Your task to perform on an android device: Go to location settings Image 0: 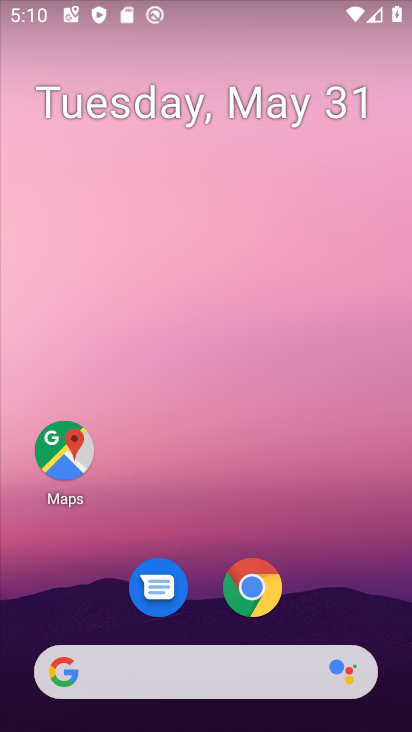
Step 0: drag from (200, 611) to (234, 45)
Your task to perform on an android device: Go to location settings Image 1: 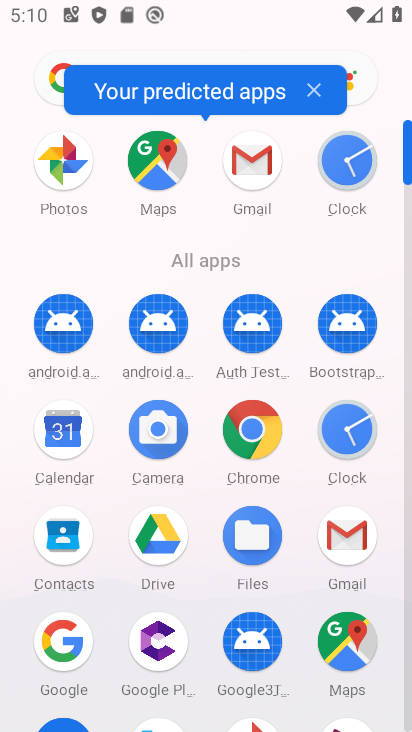
Step 1: drag from (202, 599) to (215, 134)
Your task to perform on an android device: Go to location settings Image 2: 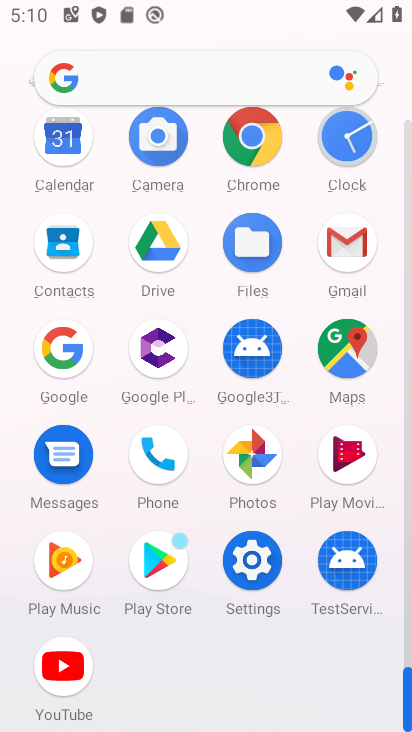
Step 2: click (264, 569)
Your task to perform on an android device: Go to location settings Image 3: 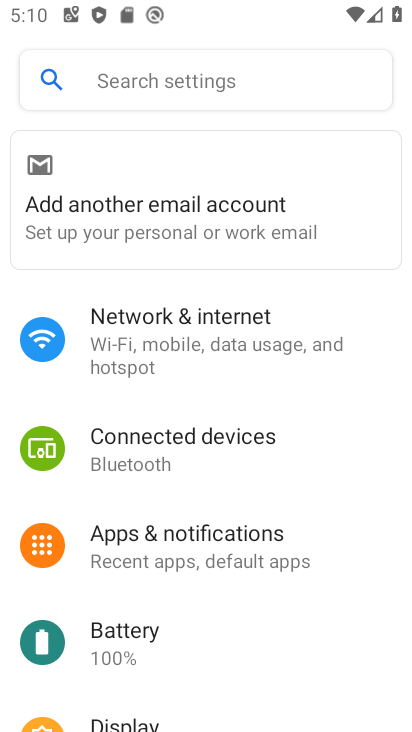
Step 3: drag from (264, 569) to (218, 43)
Your task to perform on an android device: Go to location settings Image 4: 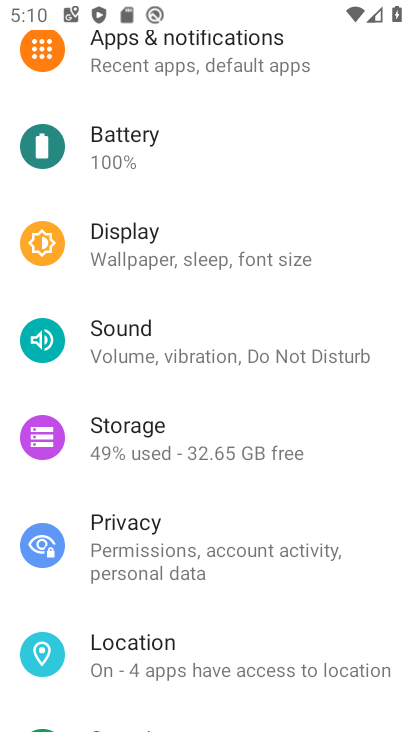
Step 4: click (137, 677)
Your task to perform on an android device: Go to location settings Image 5: 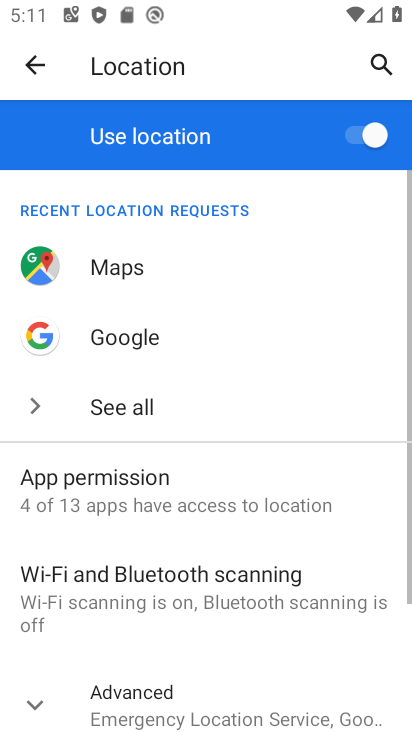
Step 5: task complete